Your task to perform on an android device: Open maps Image 0: 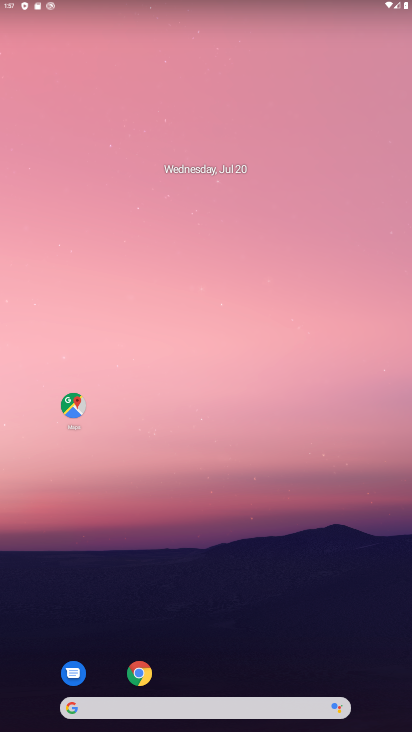
Step 0: click (74, 413)
Your task to perform on an android device: Open maps Image 1: 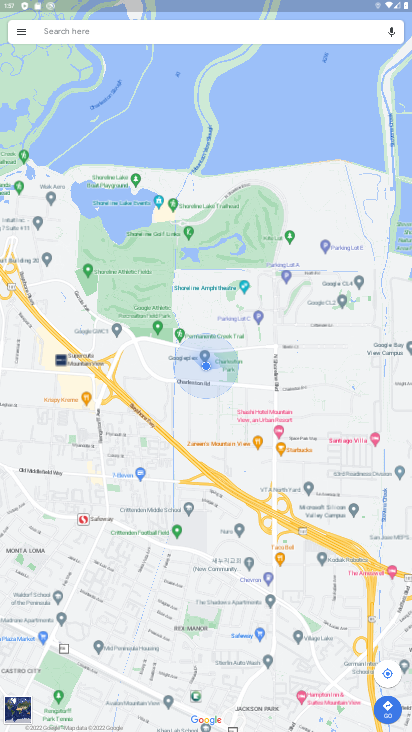
Step 1: task complete